Your task to perform on an android device: What's on my calendar tomorrow? Image 0: 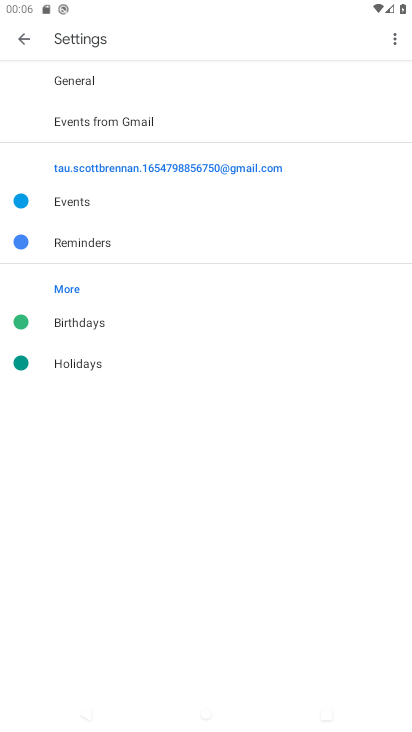
Step 0: press home button
Your task to perform on an android device: What's on my calendar tomorrow? Image 1: 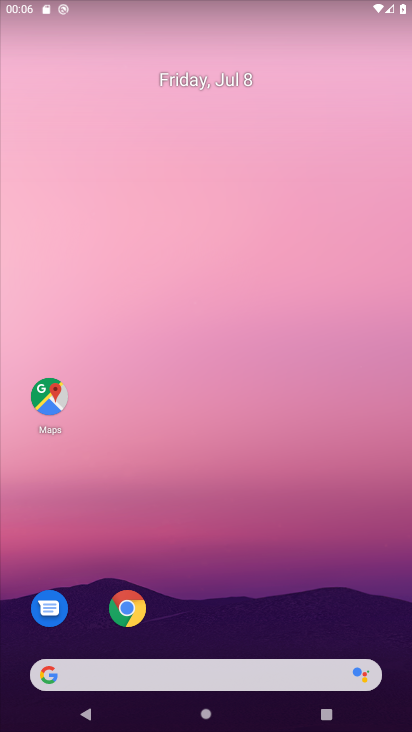
Step 1: drag from (171, 633) to (209, 22)
Your task to perform on an android device: What's on my calendar tomorrow? Image 2: 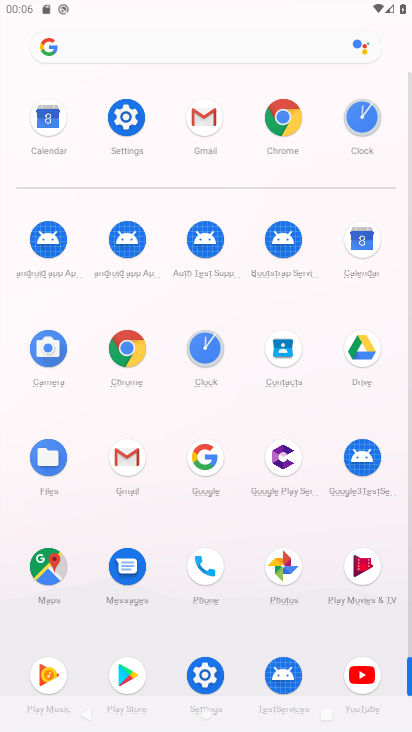
Step 2: click (354, 230)
Your task to perform on an android device: What's on my calendar tomorrow? Image 3: 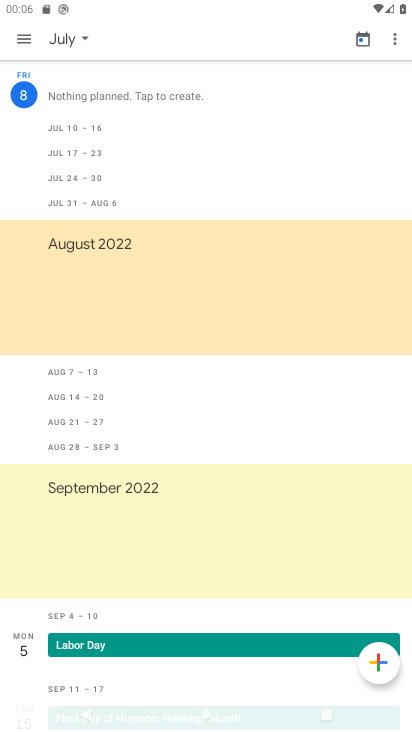
Step 3: click (15, 34)
Your task to perform on an android device: What's on my calendar tomorrow? Image 4: 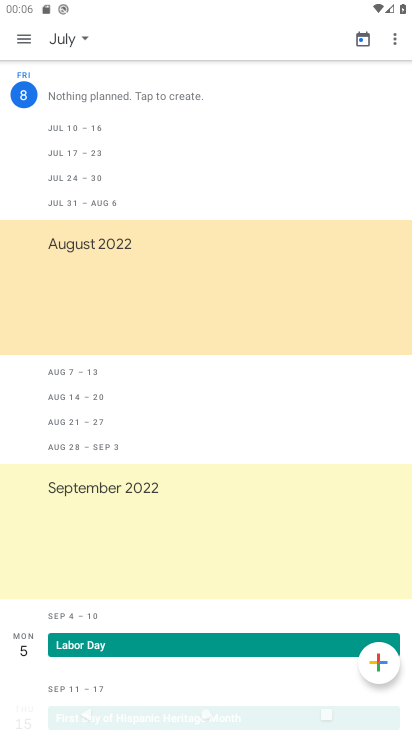
Step 4: click (34, 29)
Your task to perform on an android device: What's on my calendar tomorrow? Image 5: 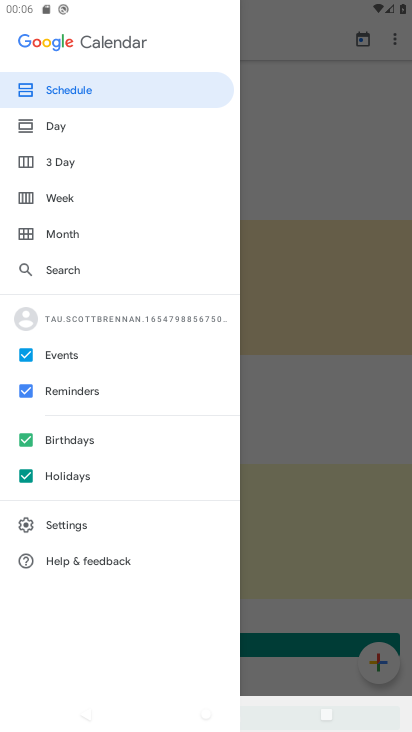
Step 5: click (62, 223)
Your task to perform on an android device: What's on my calendar tomorrow? Image 6: 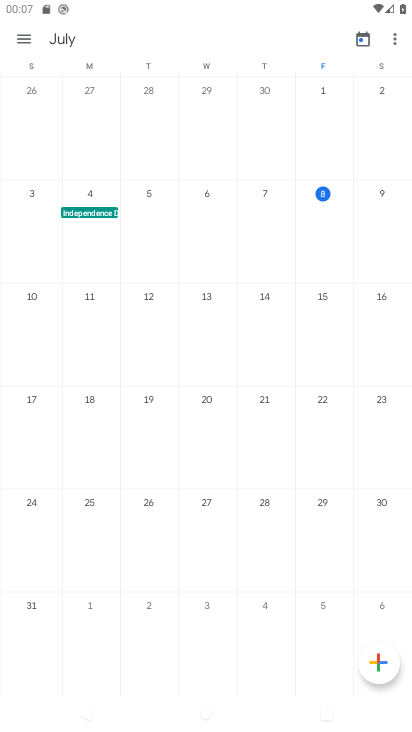
Step 6: click (384, 208)
Your task to perform on an android device: What's on my calendar tomorrow? Image 7: 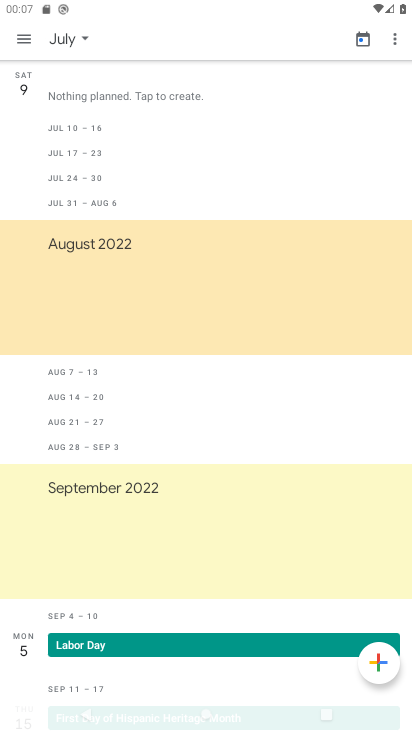
Step 7: task complete